Your task to perform on an android device: What's the weather today? Image 0: 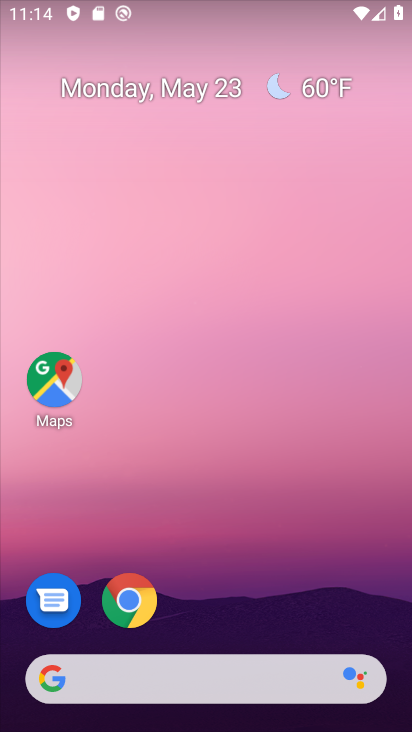
Step 0: drag from (280, 696) to (240, 181)
Your task to perform on an android device: What's the weather today? Image 1: 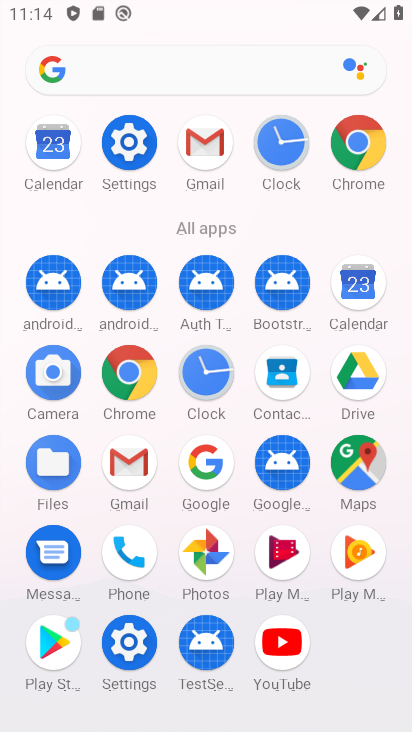
Step 1: click (149, 69)
Your task to perform on an android device: What's the weather today? Image 2: 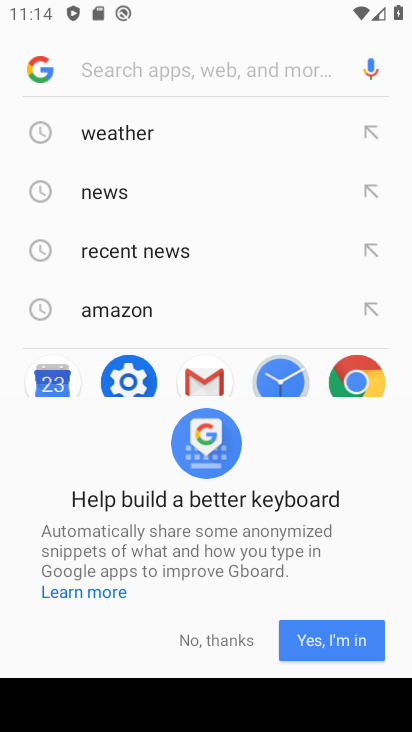
Step 2: click (165, 132)
Your task to perform on an android device: What's the weather today? Image 3: 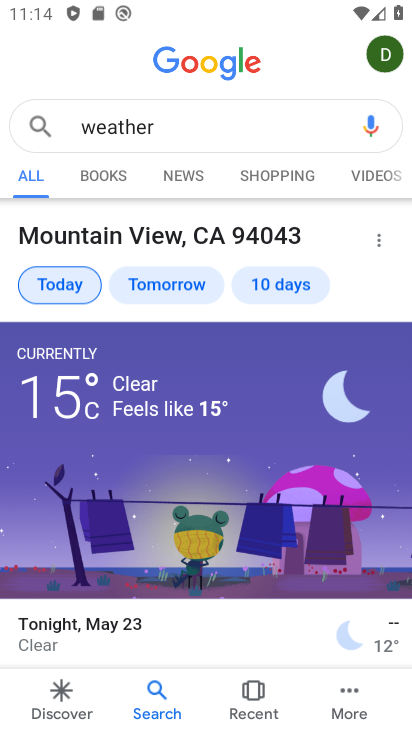
Step 3: task complete